Your task to perform on an android device: Go to Amazon Image 0: 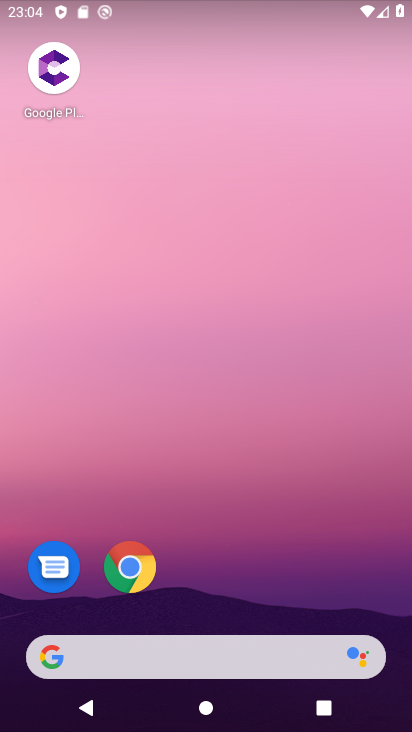
Step 0: click (130, 567)
Your task to perform on an android device: Go to Amazon Image 1: 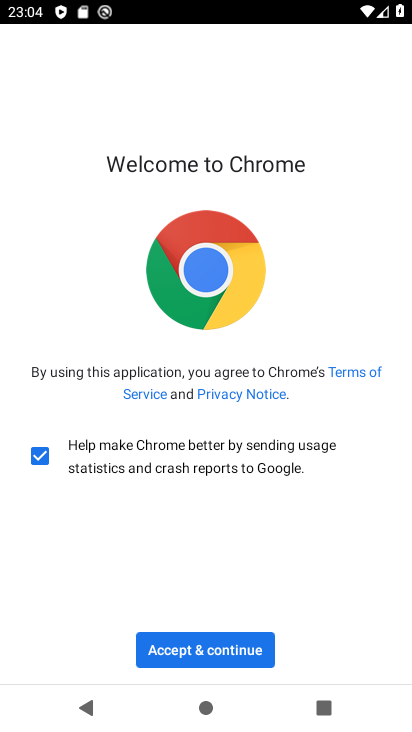
Step 1: click (208, 642)
Your task to perform on an android device: Go to Amazon Image 2: 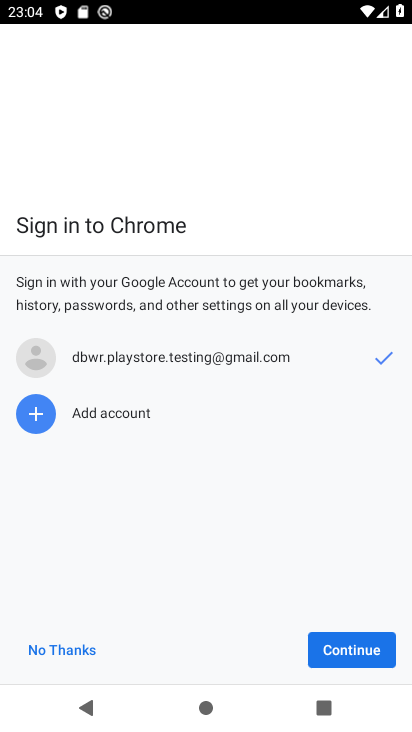
Step 2: click (334, 649)
Your task to perform on an android device: Go to Amazon Image 3: 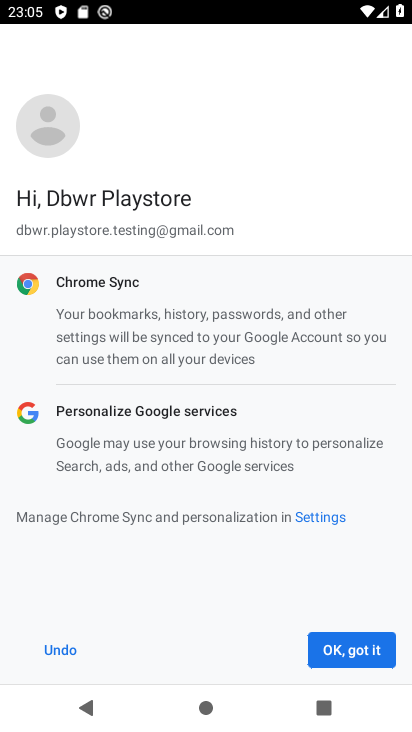
Step 3: click (349, 649)
Your task to perform on an android device: Go to Amazon Image 4: 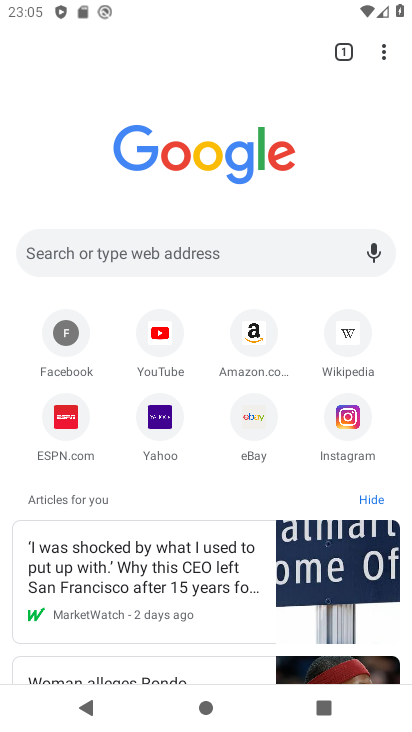
Step 4: click (249, 335)
Your task to perform on an android device: Go to Amazon Image 5: 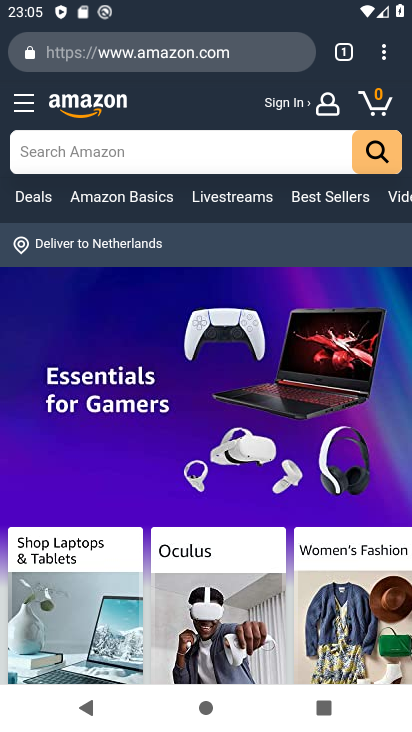
Step 5: task complete